Your task to perform on an android device: Go to sound settings Image 0: 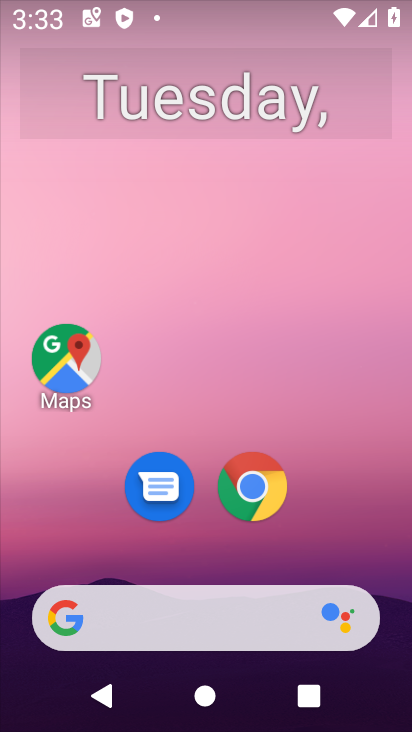
Step 0: drag from (222, 513) to (233, 98)
Your task to perform on an android device: Go to sound settings Image 1: 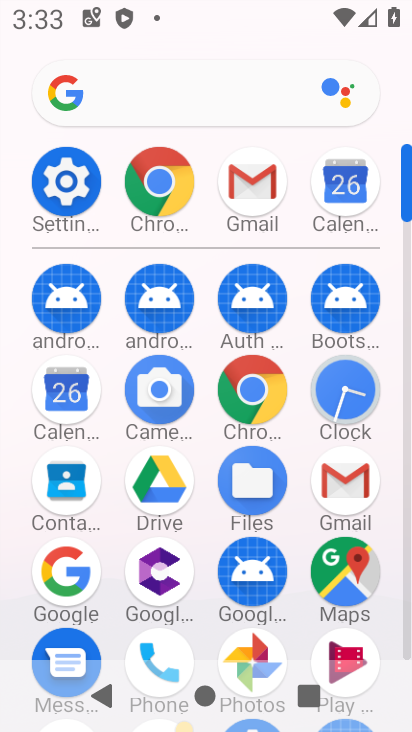
Step 1: click (71, 180)
Your task to perform on an android device: Go to sound settings Image 2: 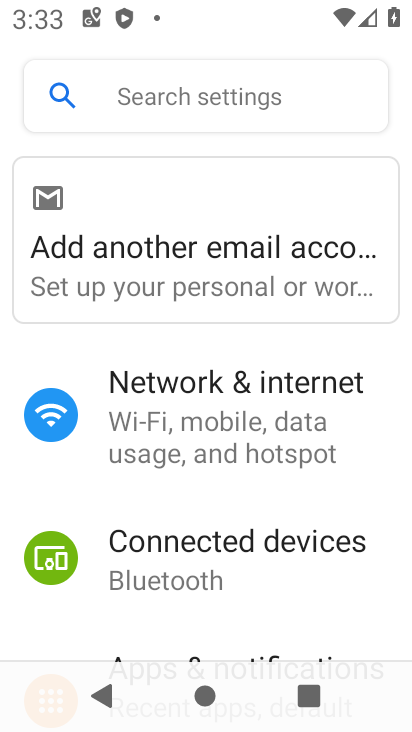
Step 2: drag from (211, 576) to (268, 83)
Your task to perform on an android device: Go to sound settings Image 3: 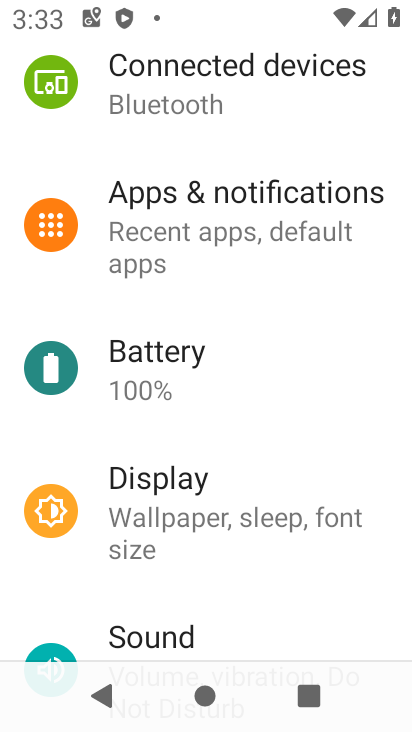
Step 3: click (149, 631)
Your task to perform on an android device: Go to sound settings Image 4: 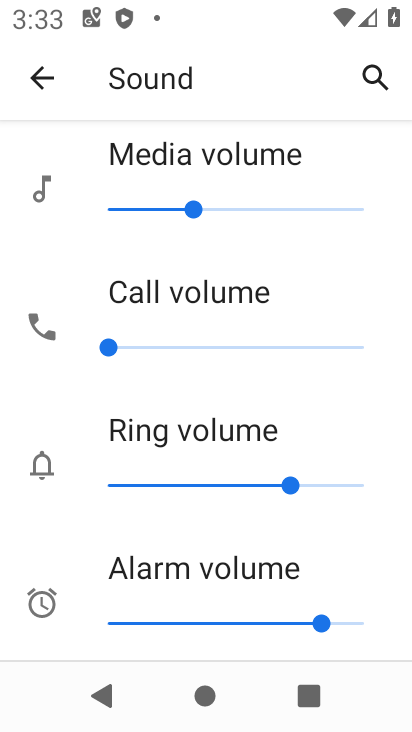
Step 4: task complete